Your task to perform on an android device: Open the Play Movies app and select the watchlist tab. Image 0: 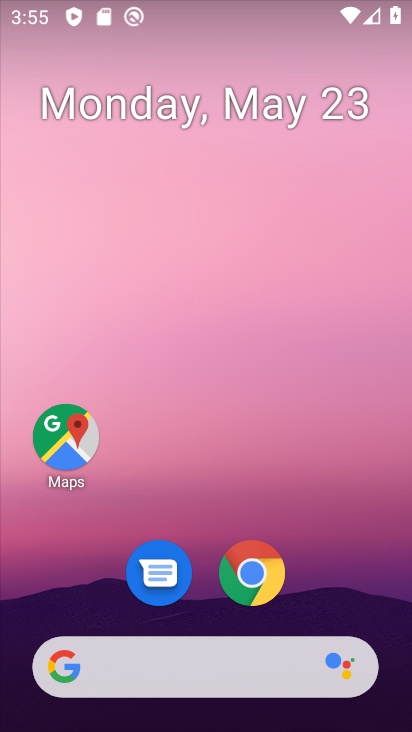
Step 0: click (258, 599)
Your task to perform on an android device: Open the Play Movies app and select the watchlist tab. Image 1: 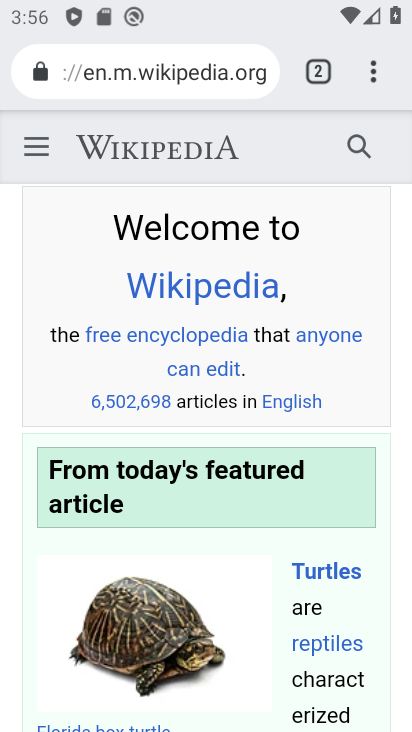
Step 1: press home button
Your task to perform on an android device: Open the Play Movies app and select the watchlist tab. Image 2: 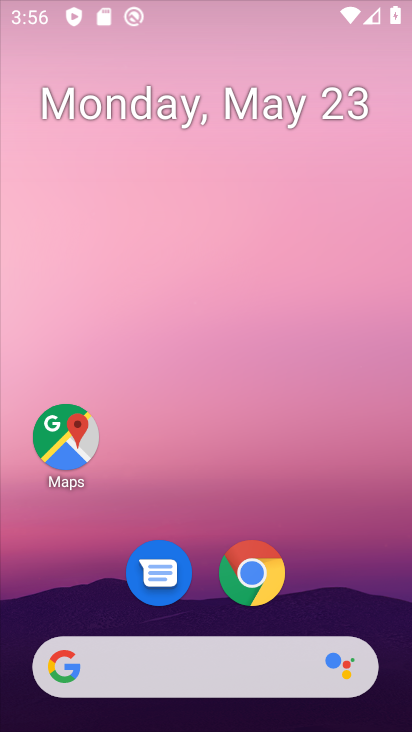
Step 2: drag from (185, 719) to (146, 241)
Your task to perform on an android device: Open the Play Movies app and select the watchlist tab. Image 3: 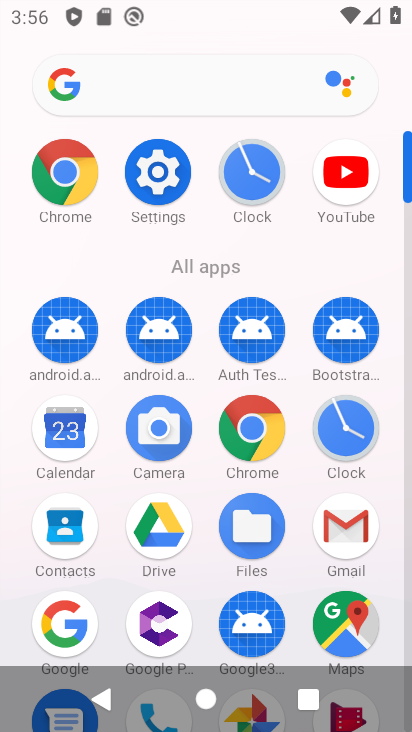
Step 3: drag from (297, 636) to (284, 200)
Your task to perform on an android device: Open the Play Movies app and select the watchlist tab. Image 4: 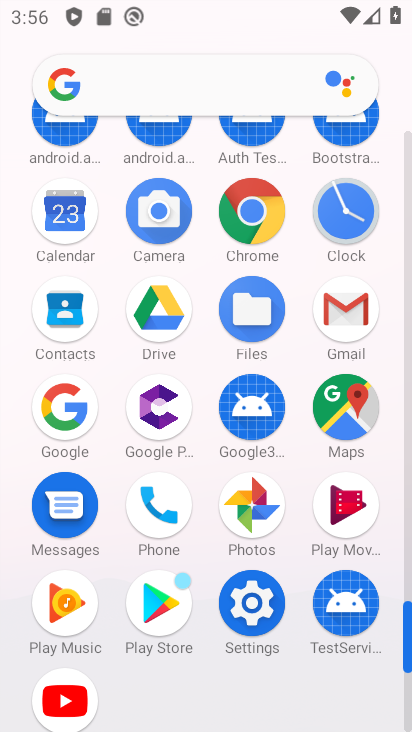
Step 4: click (325, 497)
Your task to perform on an android device: Open the Play Movies app and select the watchlist tab. Image 5: 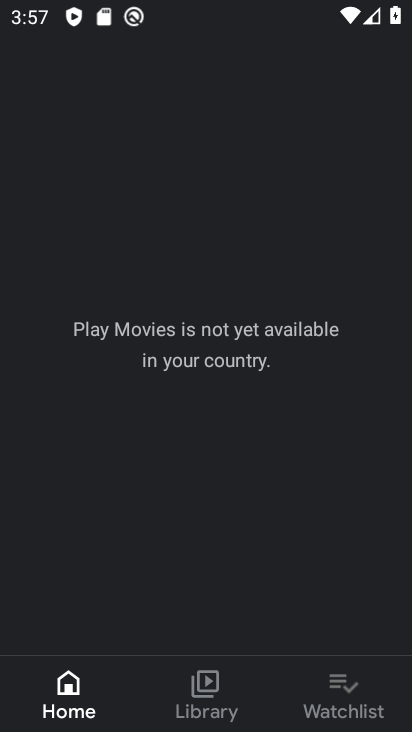
Step 5: click (344, 696)
Your task to perform on an android device: Open the Play Movies app and select the watchlist tab. Image 6: 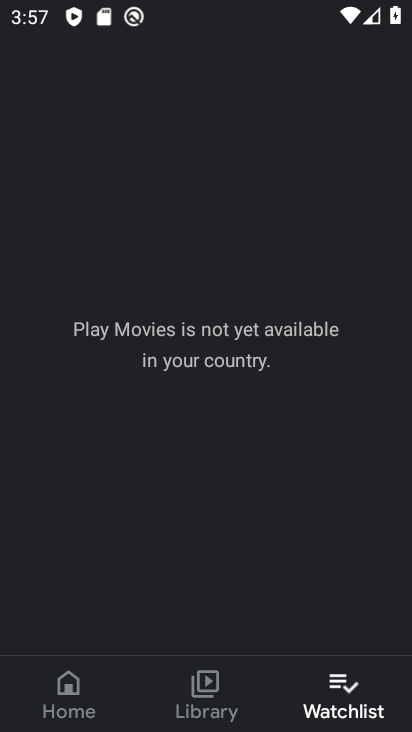
Step 6: task complete